Your task to perform on an android device: Open Google Chrome and click the shortcut for Amazon.com Image 0: 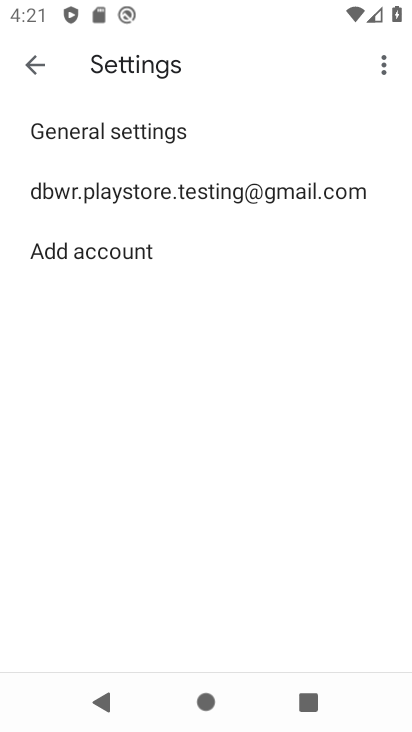
Step 0: press home button
Your task to perform on an android device: Open Google Chrome and click the shortcut for Amazon.com Image 1: 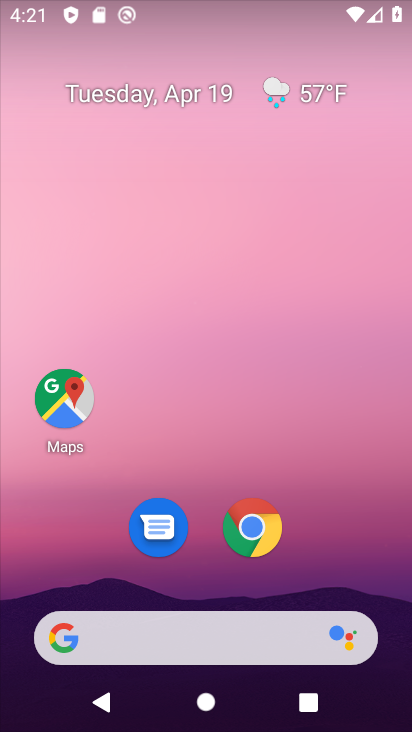
Step 1: click (256, 519)
Your task to perform on an android device: Open Google Chrome and click the shortcut for Amazon.com Image 2: 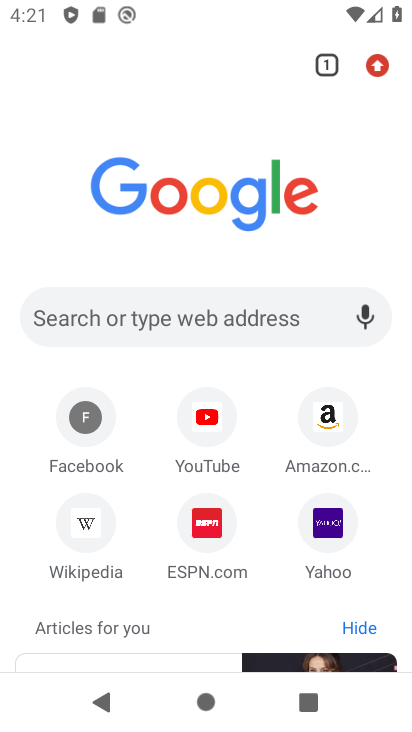
Step 2: click (326, 410)
Your task to perform on an android device: Open Google Chrome and click the shortcut for Amazon.com Image 3: 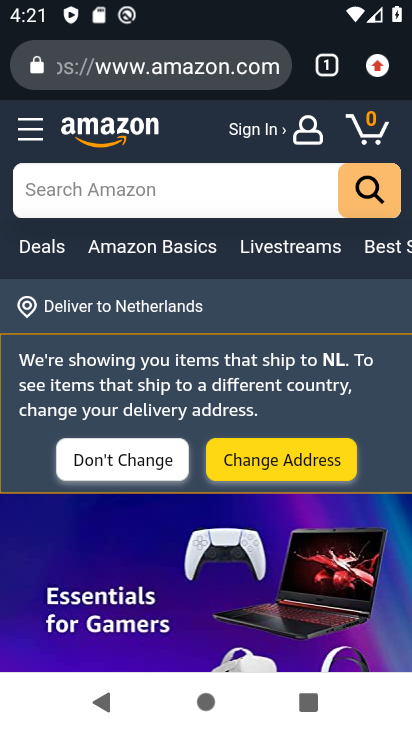
Step 3: task complete